Your task to perform on an android device: Open the stopwatch Image 0: 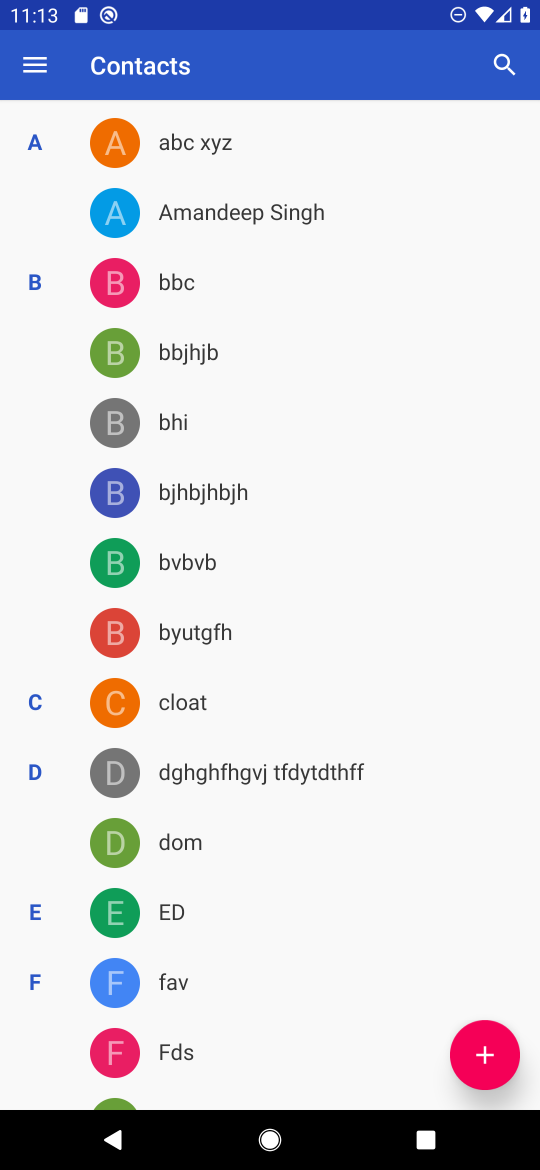
Step 0: press home button
Your task to perform on an android device: Open the stopwatch Image 1: 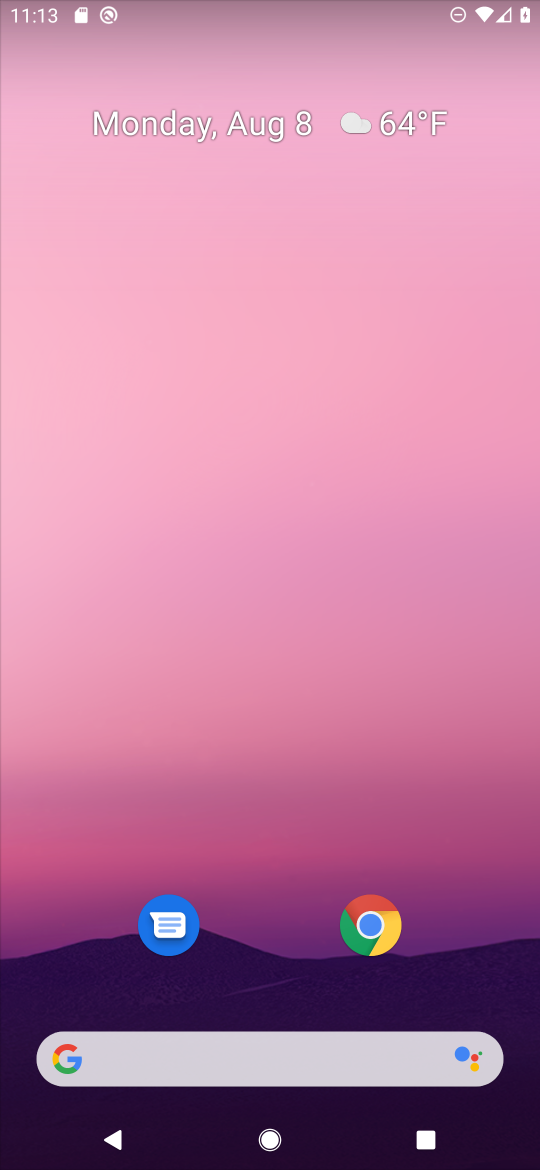
Step 1: drag from (268, 935) to (246, 187)
Your task to perform on an android device: Open the stopwatch Image 2: 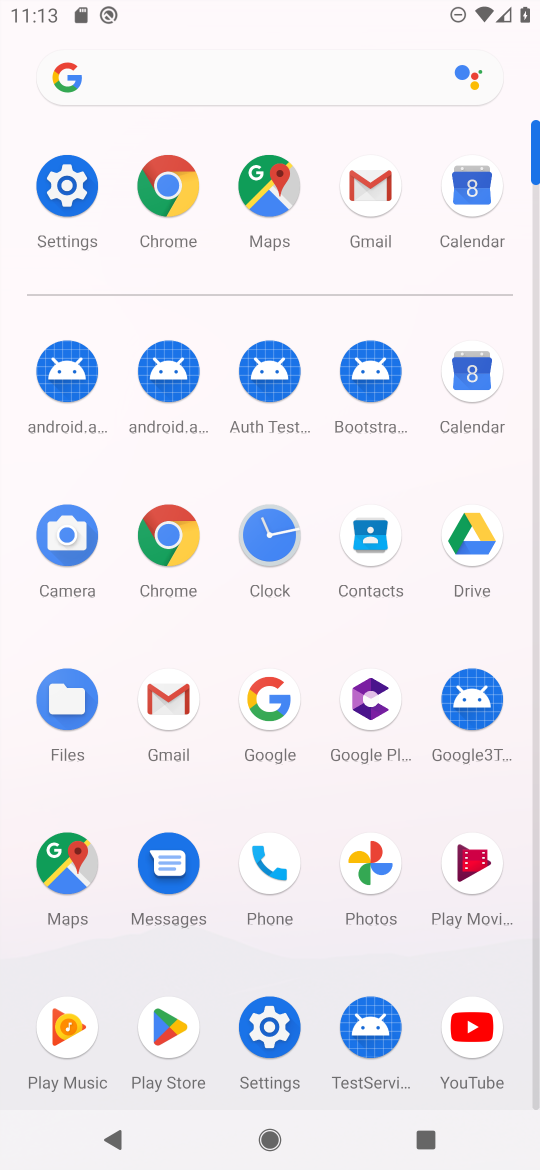
Step 2: click (280, 531)
Your task to perform on an android device: Open the stopwatch Image 3: 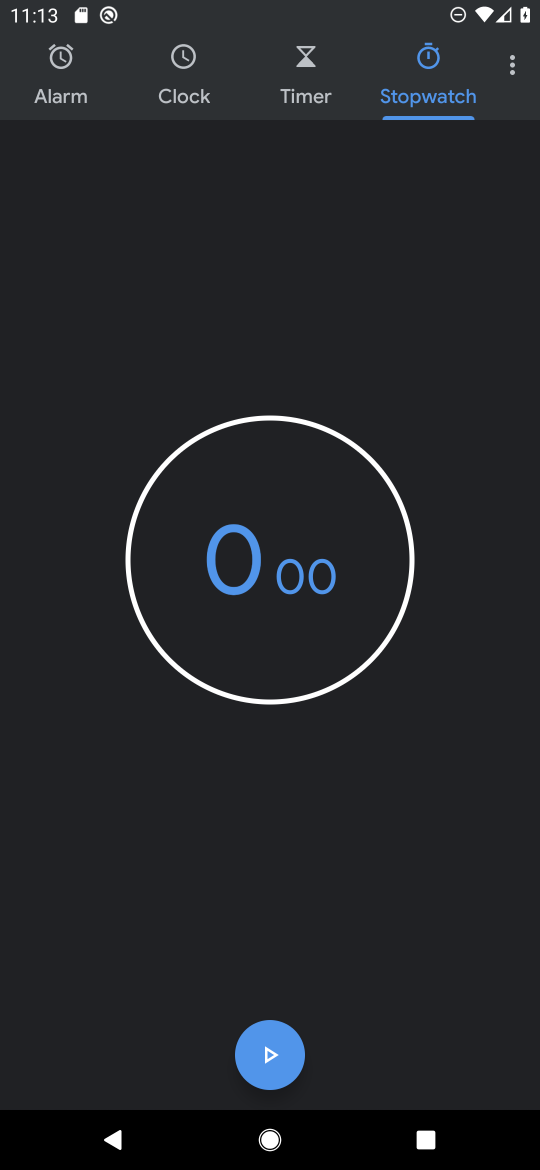
Step 3: task complete